Your task to perform on an android device: toggle show notifications on the lock screen Image 0: 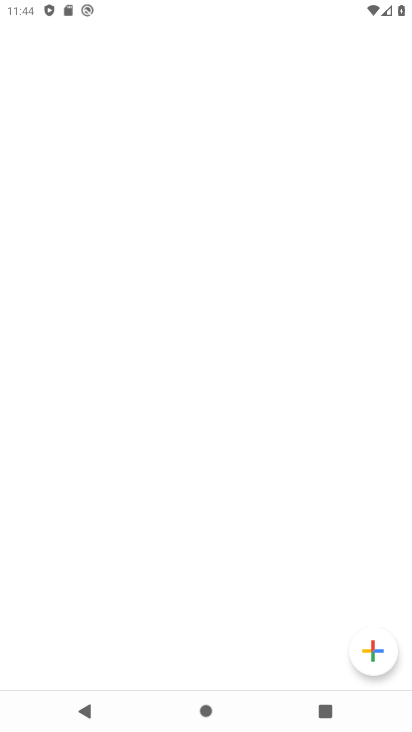
Step 0: drag from (220, 598) to (177, 233)
Your task to perform on an android device: toggle show notifications on the lock screen Image 1: 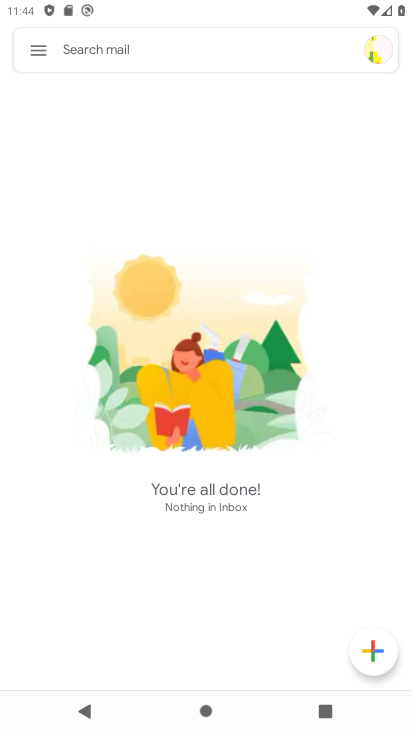
Step 1: press home button
Your task to perform on an android device: toggle show notifications on the lock screen Image 2: 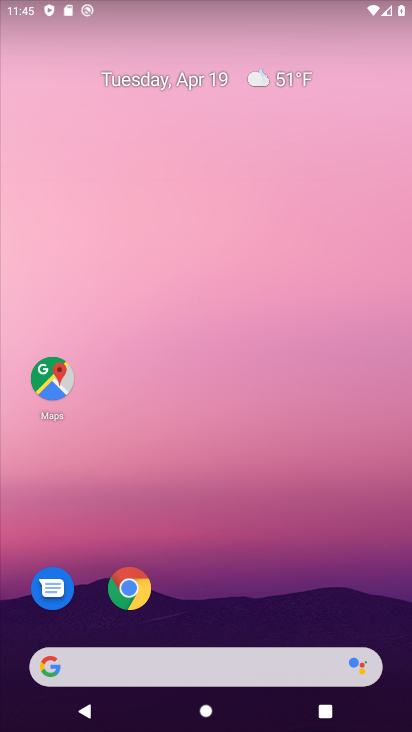
Step 2: drag from (201, 605) to (193, 155)
Your task to perform on an android device: toggle show notifications on the lock screen Image 3: 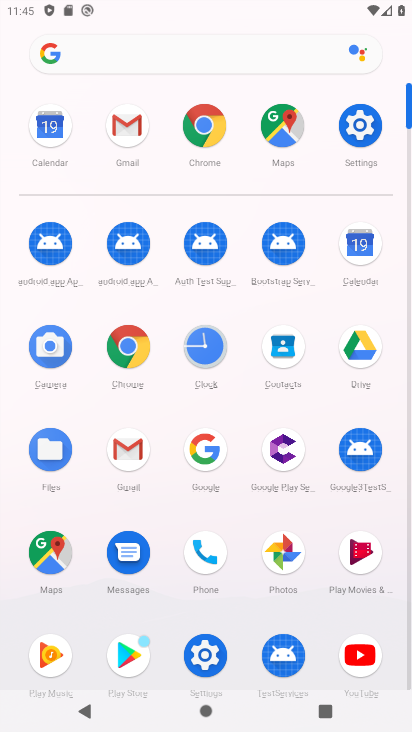
Step 3: click (206, 653)
Your task to perform on an android device: toggle show notifications on the lock screen Image 4: 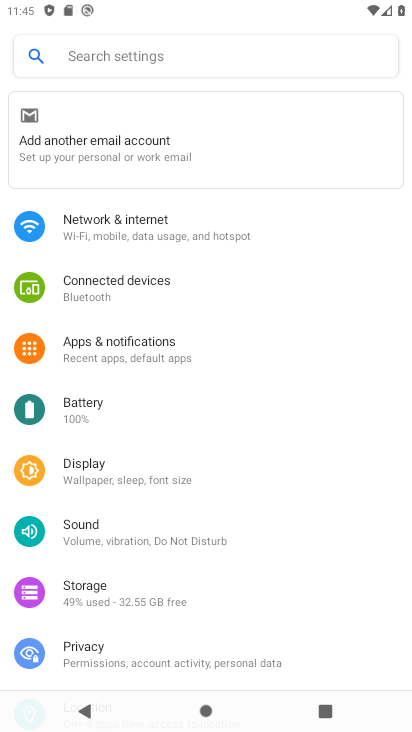
Step 4: click (136, 345)
Your task to perform on an android device: toggle show notifications on the lock screen Image 5: 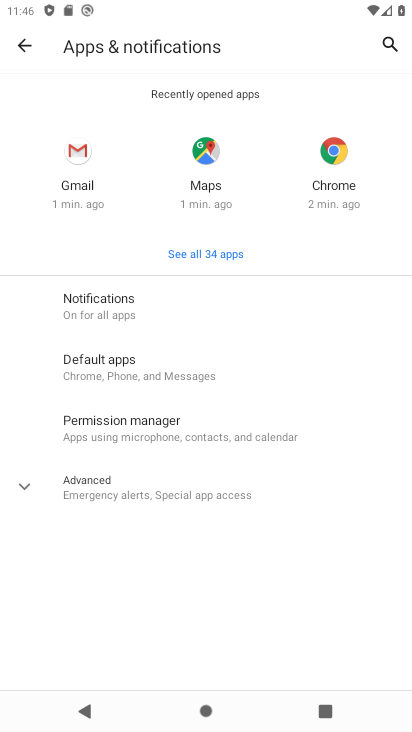
Step 5: click (81, 314)
Your task to perform on an android device: toggle show notifications on the lock screen Image 6: 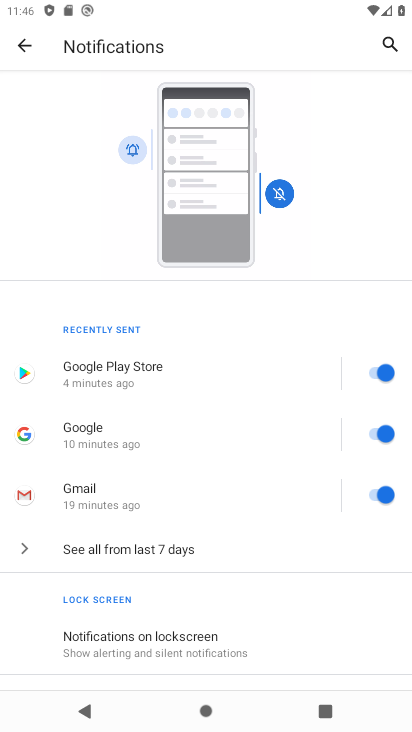
Step 6: click (221, 633)
Your task to perform on an android device: toggle show notifications on the lock screen Image 7: 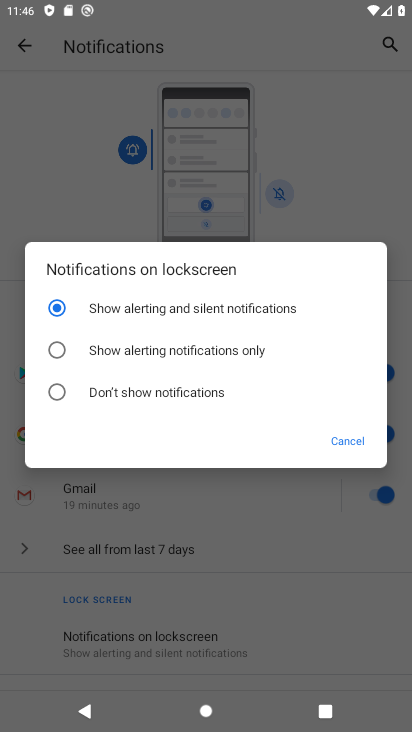
Step 7: click (53, 345)
Your task to perform on an android device: toggle show notifications on the lock screen Image 8: 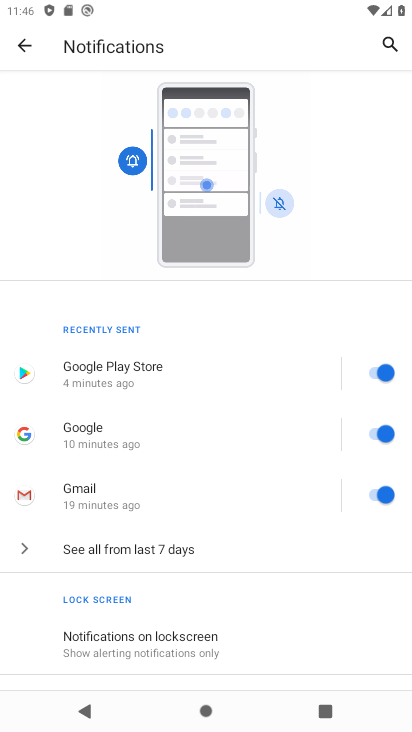
Step 8: task complete